Your task to perform on an android device: open the mobile data screen to see how much data has been used Image 0: 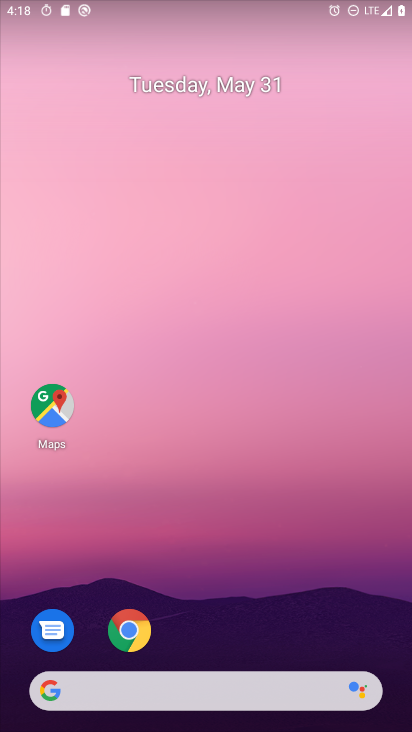
Step 0: drag from (193, 668) to (208, 11)
Your task to perform on an android device: open the mobile data screen to see how much data has been used Image 1: 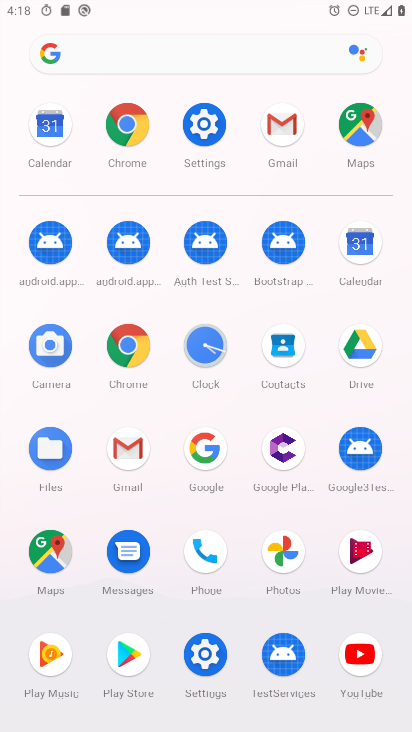
Step 1: click (220, 130)
Your task to perform on an android device: open the mobile data screen to see how much data has been used Image 2: 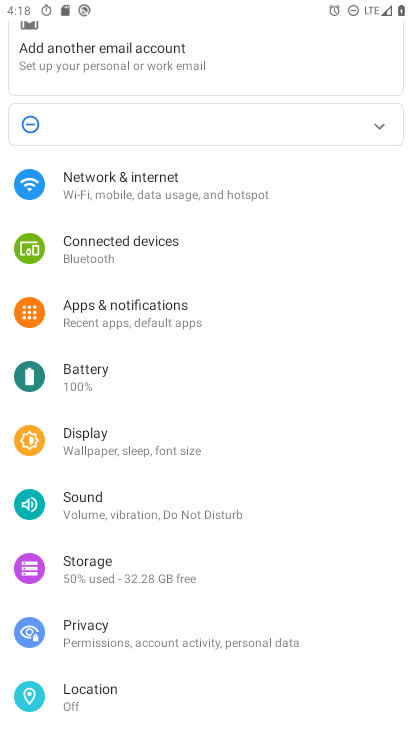
Step 2: drag from (217, 664) to (213, 512)
Your task to perform on an android device: open the mobile data screen to see how much data has been used Image 3: 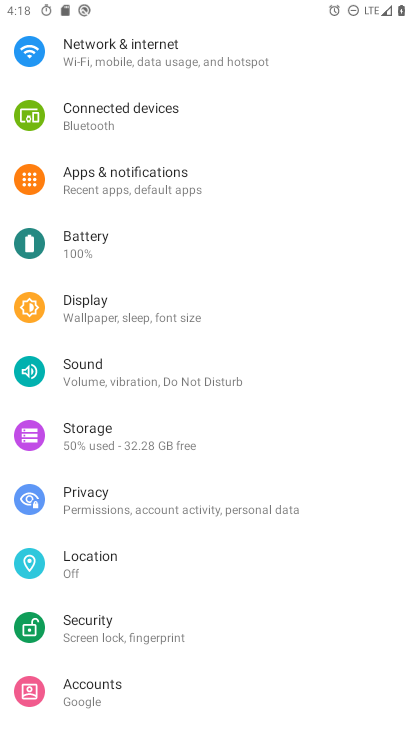
Step 3: click (201, 56)
Your task to perform on an android device: open the mobile data screen to see how much data has been used Image 4: 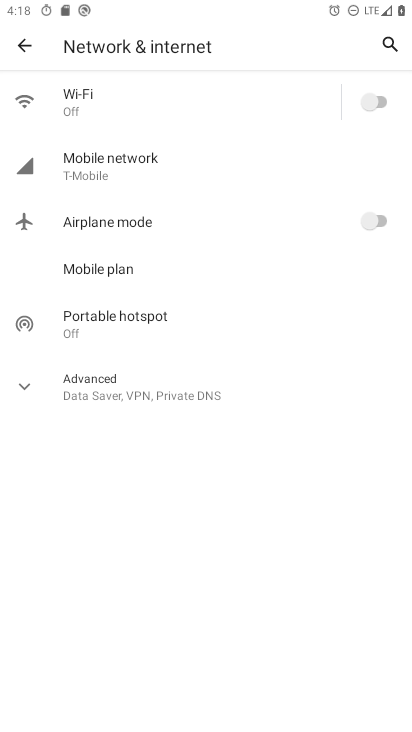
Step 4: click (149, 151)
Your task to perform on an android device: open the mobile data screen to see how much data has been used Image 5: 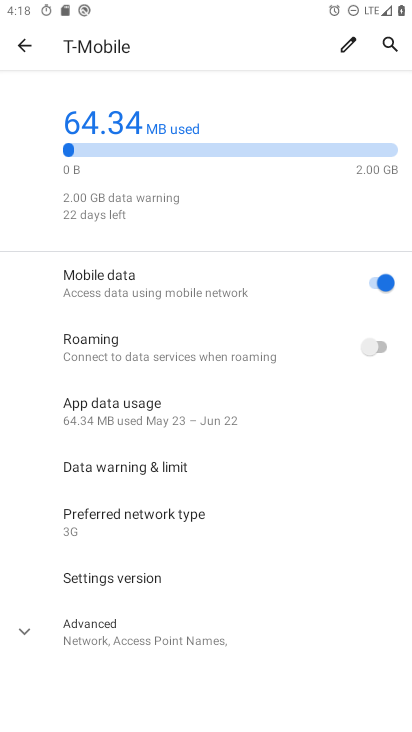
Step 5: task complete